Your task to perform on an android device: turn on data saver in the chrome app Image 0: 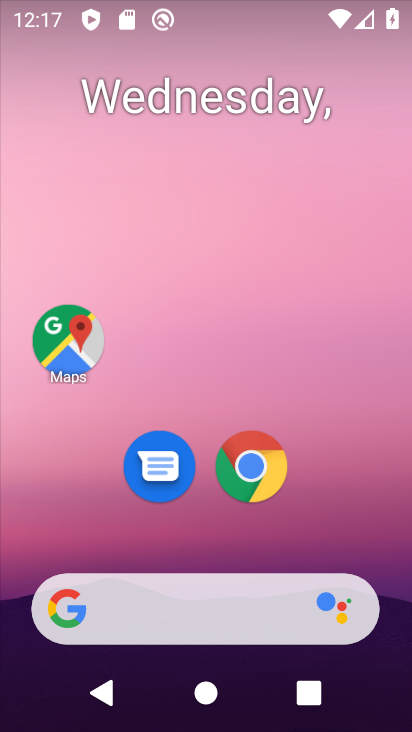
Step 0: drag from (372, 542) to (216, 37)
Your task to perform on an android device: turn on data saver in the chrome app Image 1: 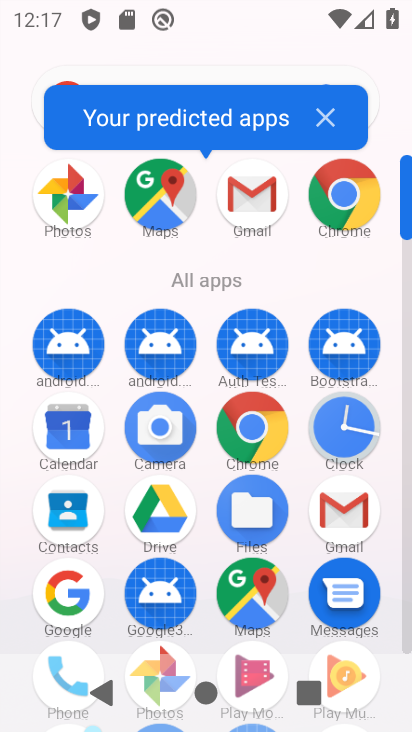
Step 1: click (340, 198)
Your task to perform on an android device: turn on data saver in the chrome app Image 2: 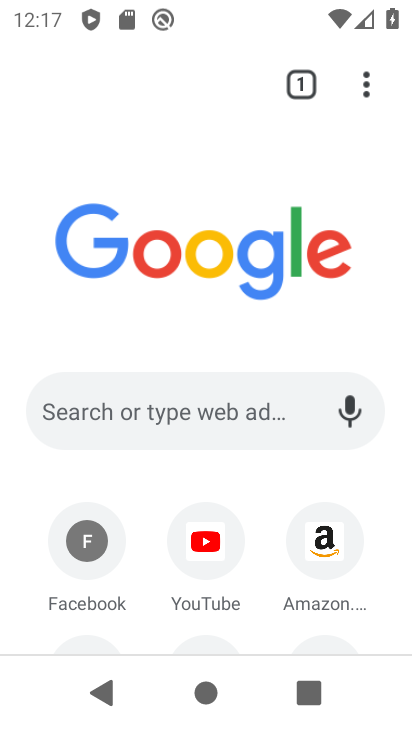
Step 2: click (360, 74)
Your task to perform on an android device: turn on data saver in the chrome app Image 3: 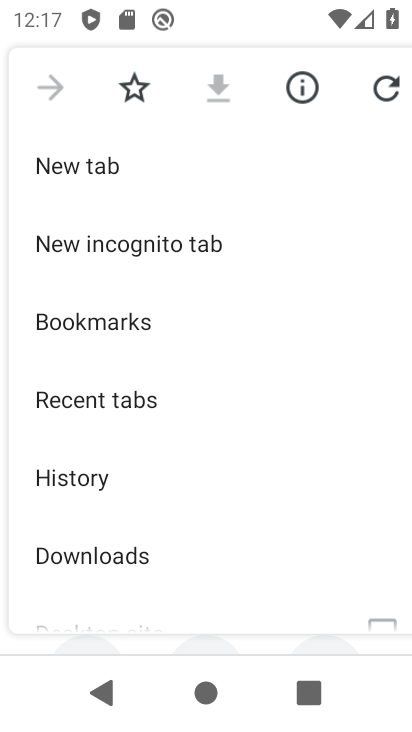
Step 3: drag from (227, 567) to (193, 219)
Your task to perform on an android device: turn on data saver in the chrome app Image 4: 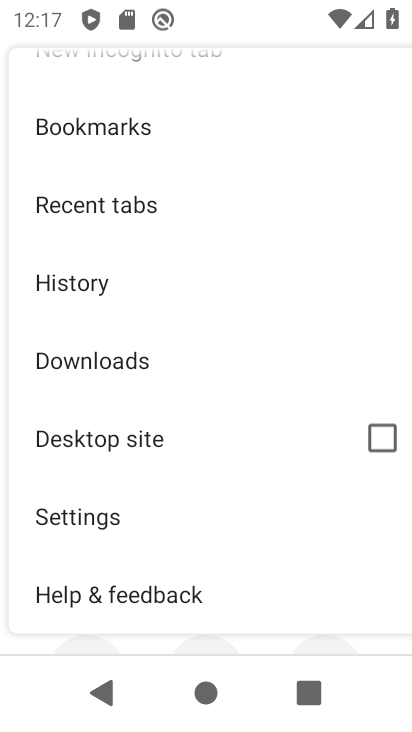
Step 4: click (116, 511)
Your task to perform on an android device: turn on data saver in the chrome app Image 5: 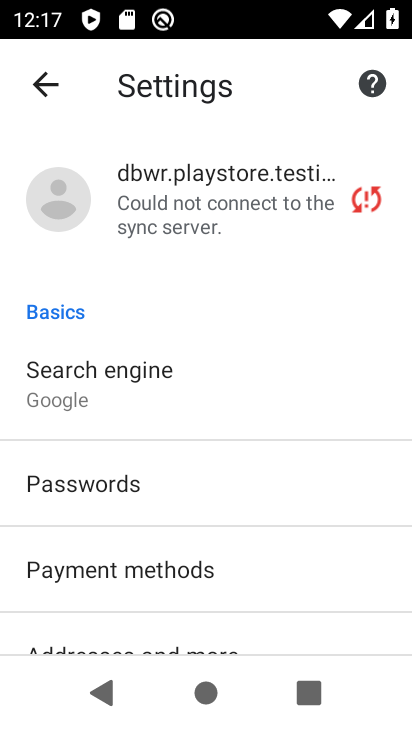
Step 5: drag from (208, 618) to (179, 233)
Your task to perform on an android device: turn on data saver in the chrome app Image 6: 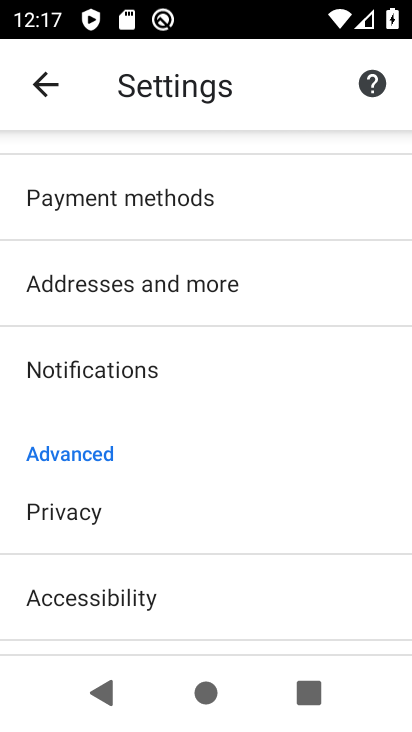
Step 6: drag from (179, 598) to (137, 249)
Your task to perform on an android device: turn on data saver in the chrome app Image 7: 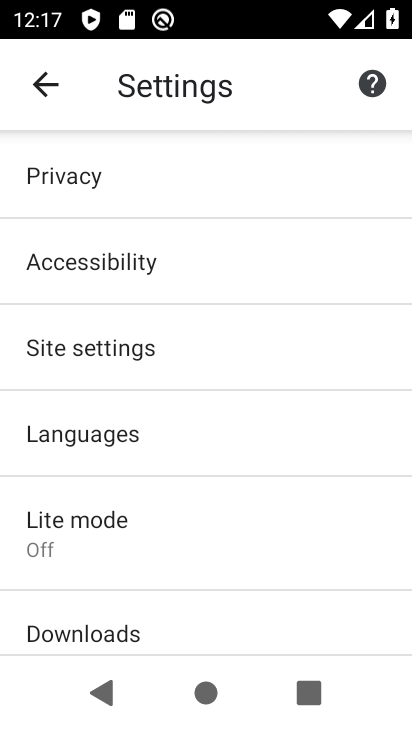
Step 7: click (189, 530)
Your task to perform on an android device: turn on data saver in the chrome app Image 8: 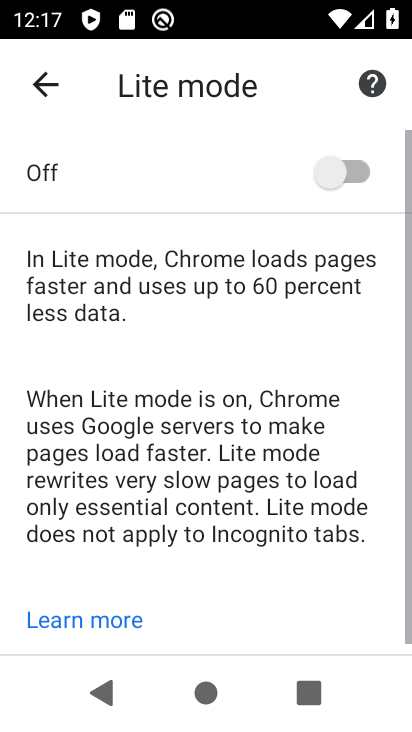
Step 8: click (348, 186)
Your task to perform on an android device: turn on data saver in the chrome app Image 9: 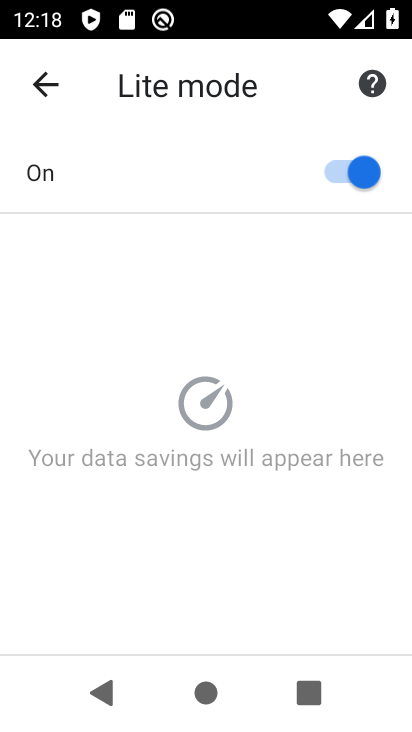
Step 9: task complete